Your task to perform on an android device: Open notification settings Image 0: 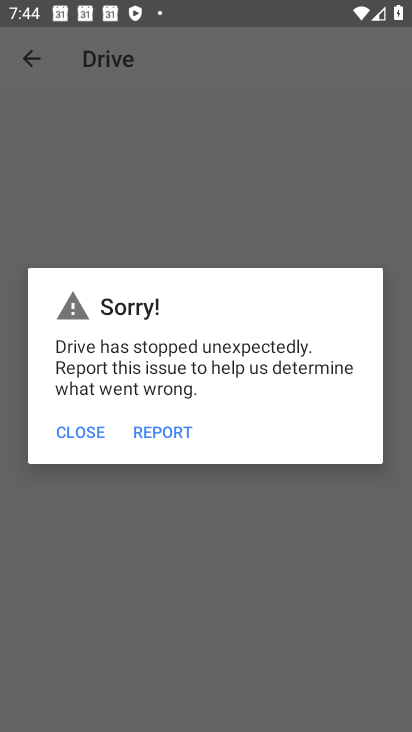
Step 0: press home button
Your task to perform on an android device: Open notification settings Image 1: 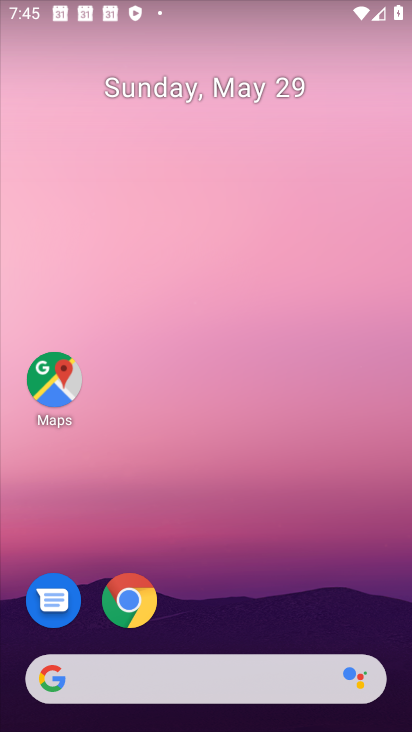
Step 1: drag from (344, 591) to (343, 231)
Your task to perform on an android device: Open notification settings Image 2: 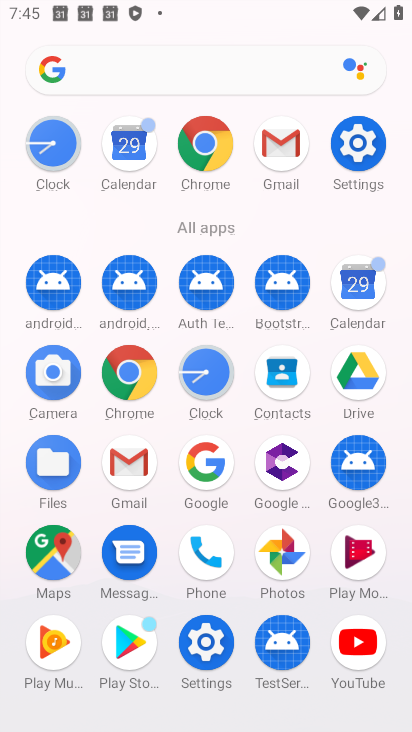
Step 2: click (370, 152)
Your task to perform on an android device: Open notification settings Image 3: 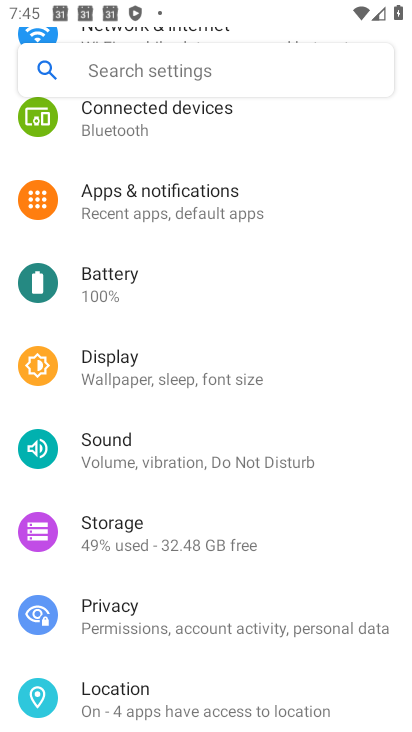
Step 3: click (285, 212)
Your task to perform on an android device: Open notification settings Image 4: 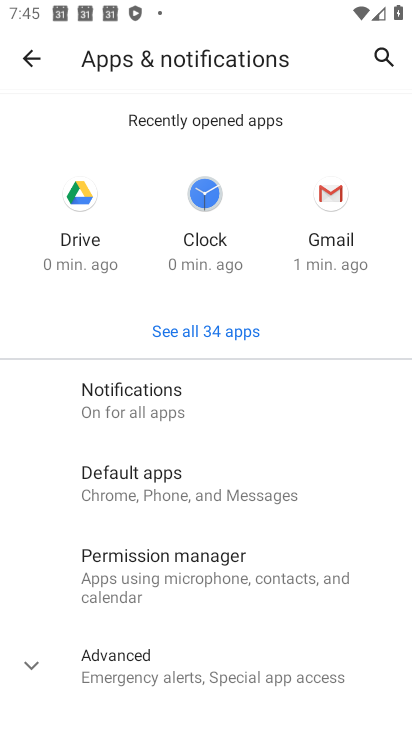
Step 4: click (161, 406)
Your task to perform on an android device: Open notification settings Image 5: 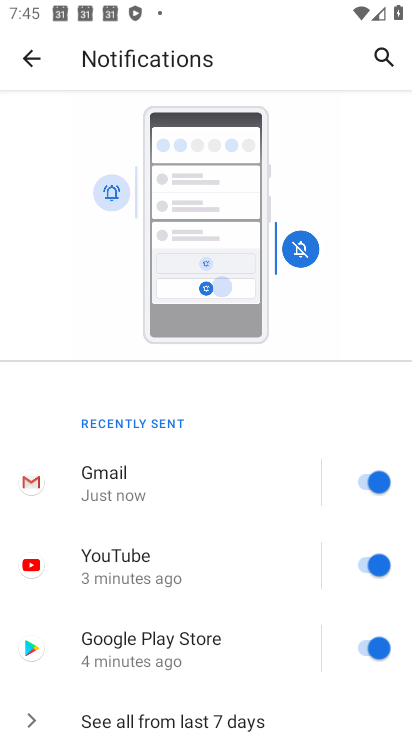
Step 5: task complete